Your task to perform on an android device: remove spam from my inbox in the gmail app Image 0: 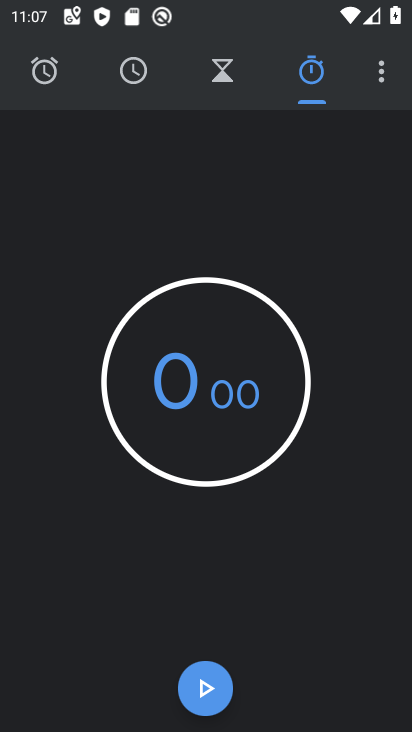
Step 0: press home button
Your task to perform on an android device: remove spam from my inbox in the gmail app Image 1: 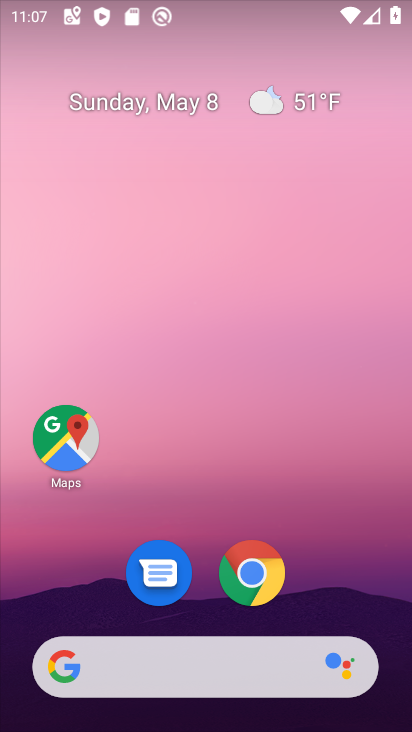
Step 1: drag from (234, 639) to (320, 283)
Your task to perform on an android device: remove spam from my inbox in the gmail app Image 2: 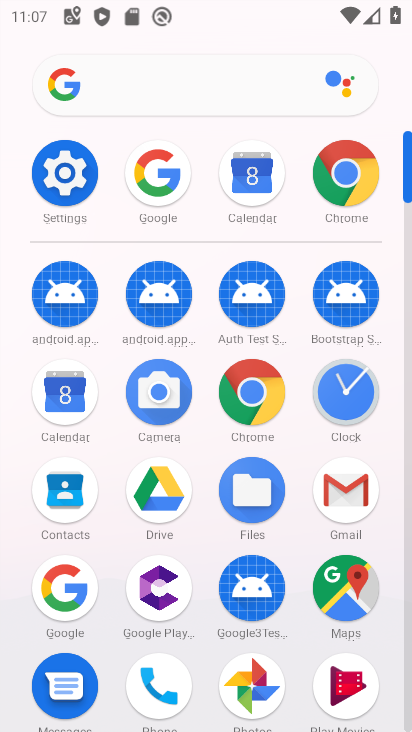
Step 2: click (343, 493)
Your task to perform on an android device: remove spam from my inbox in the gmail app Image 3: 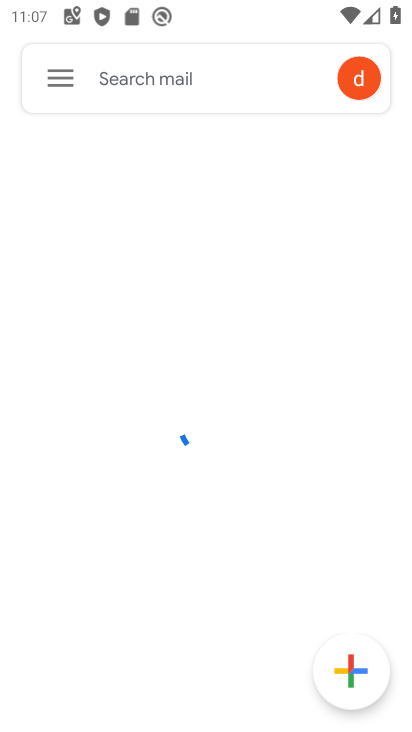
Step 3: click (59, 85)
Your task to perform on an android device: remove spam from my inbox in the gmail app Image 4: 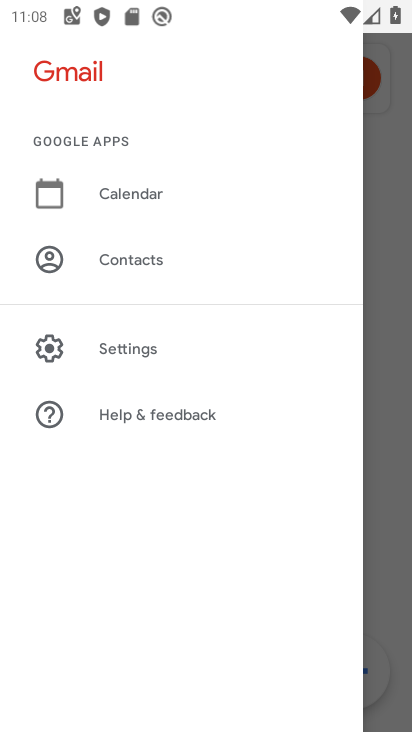
Step 4: click (98, 351)
Your task to perform on an android device: remove spam from my inbox in the gmail app Image 5: 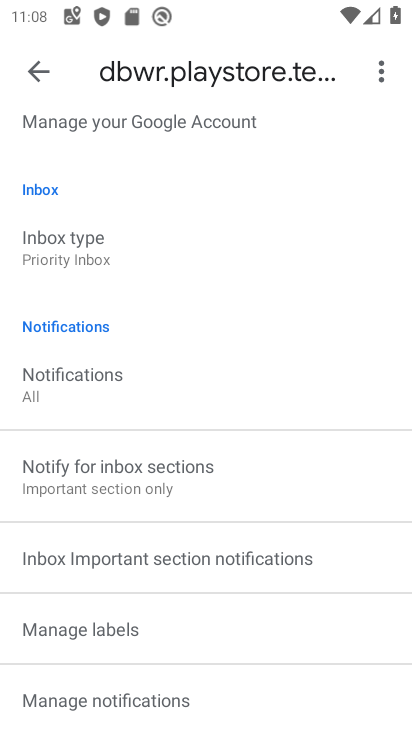
Step 5: click (35, 64)
Your task to perform on an android device: remove spam from my inbox in the gmail app Image 6: 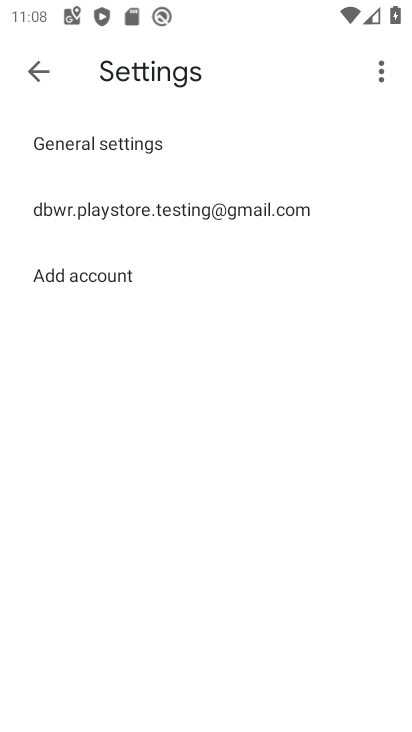
Step 6: click (31, 74)
Your task to perform on an android device: remove spam from my inbox in the gmail app Image 7: 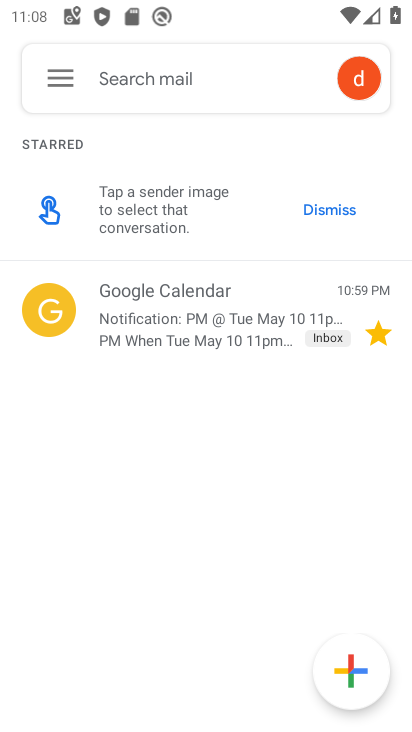
Step 7: click (59, 88)
Your task to perform on an android device: remove spam from my inbox in the gmail app Image 8: 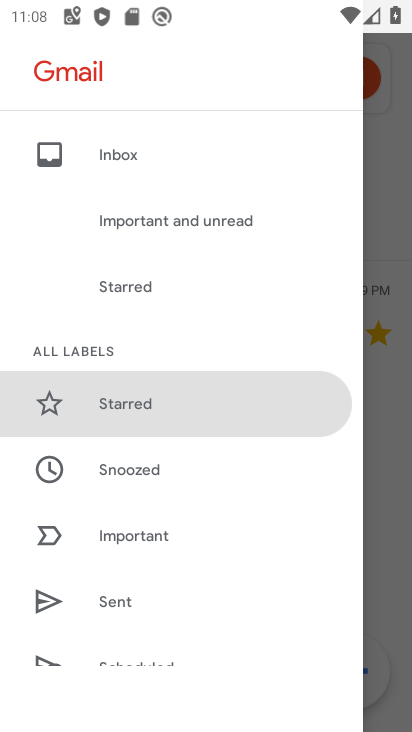
Step 8: drag from (132, 643) to (148, 301)
Your task to perform on an android device: remove spam from my inbox in the gmail app Image 9: 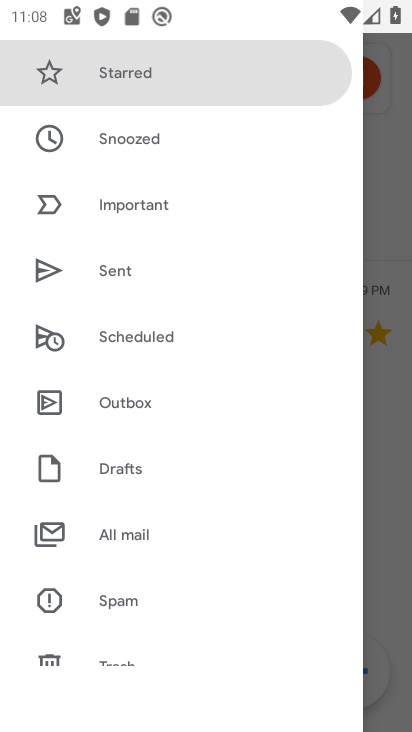
Step 9: click (110, 602)
Your task to perform on an android device: remove spam from my inbox in the gmail app Image 10: 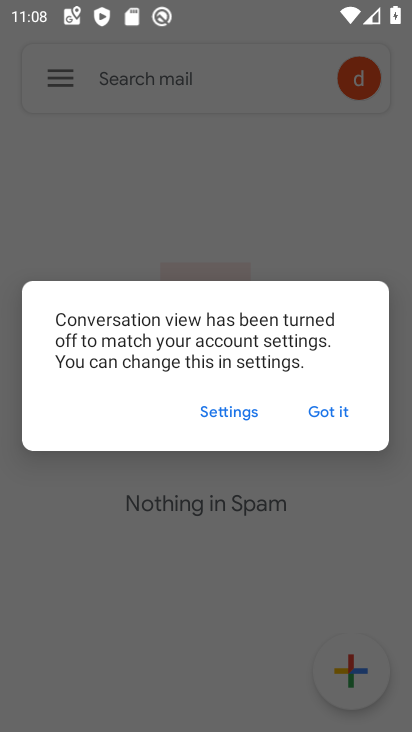
Step 10: click (341, 413)
Your task to perform on an android device: remove spam from my inbox in the gmail app Image 11: 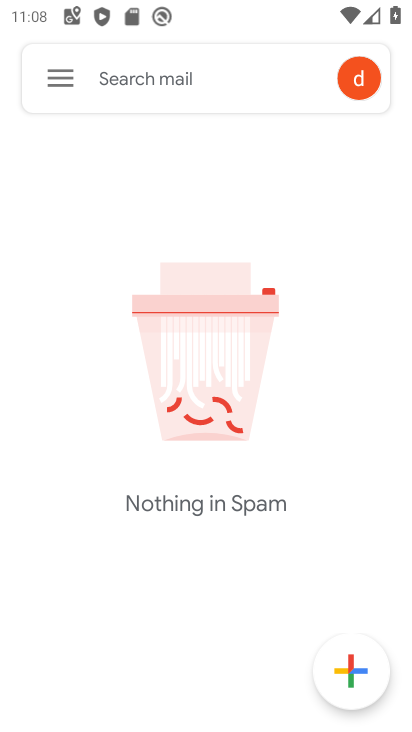
Step 11: task complete